Your task to perform on an android device: Open Google Maps and go to "Timeline" Image 0: 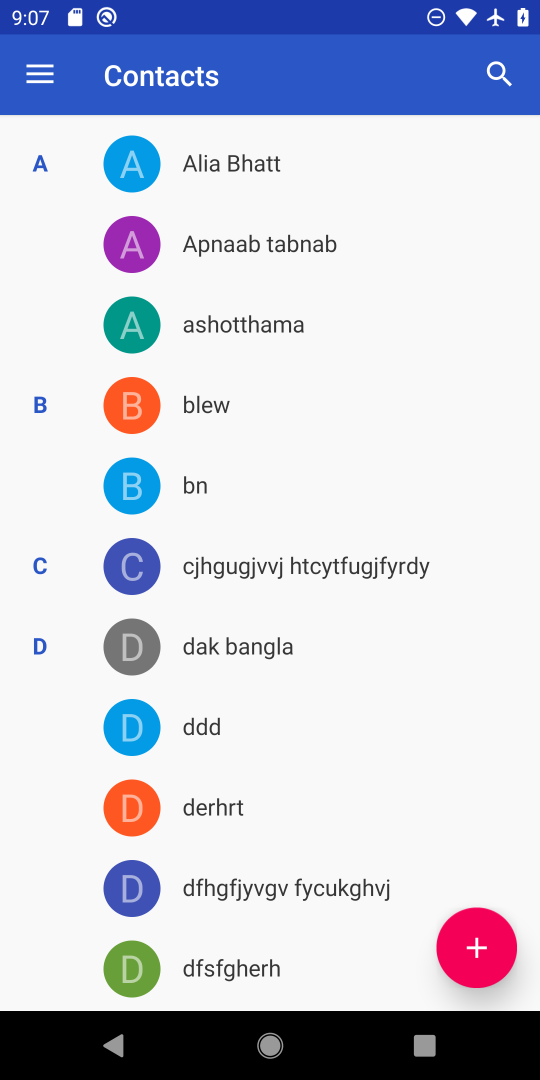
Step 0: press home button
Your task to perform on an android device: Open Google Maps and go to "Timeline" Image 1: 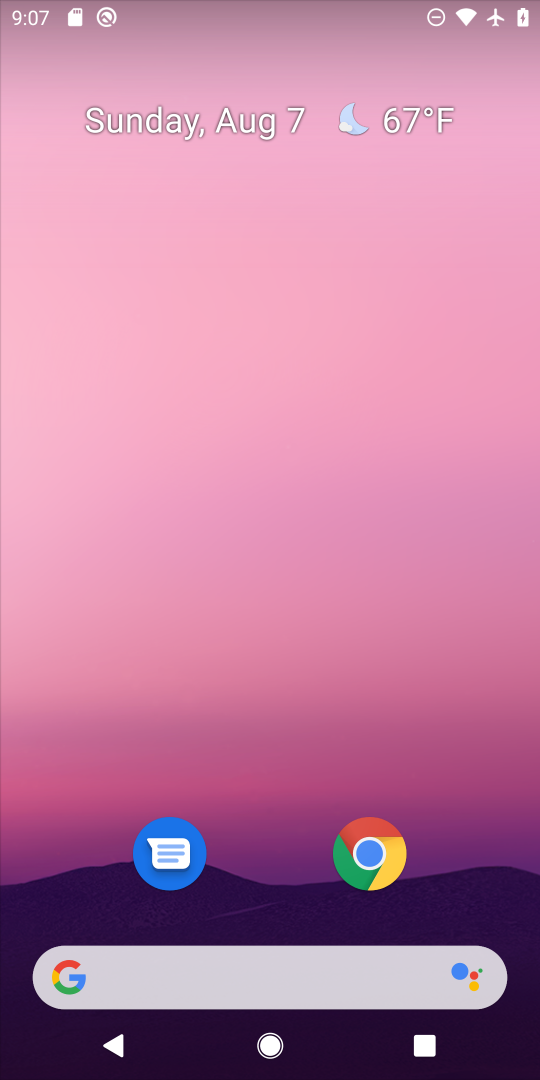
Step 1: drag from (276, 964) to (271, 493)
Your task to perform on an android device: Open Google Maps and go to "Timeline" Image 2: 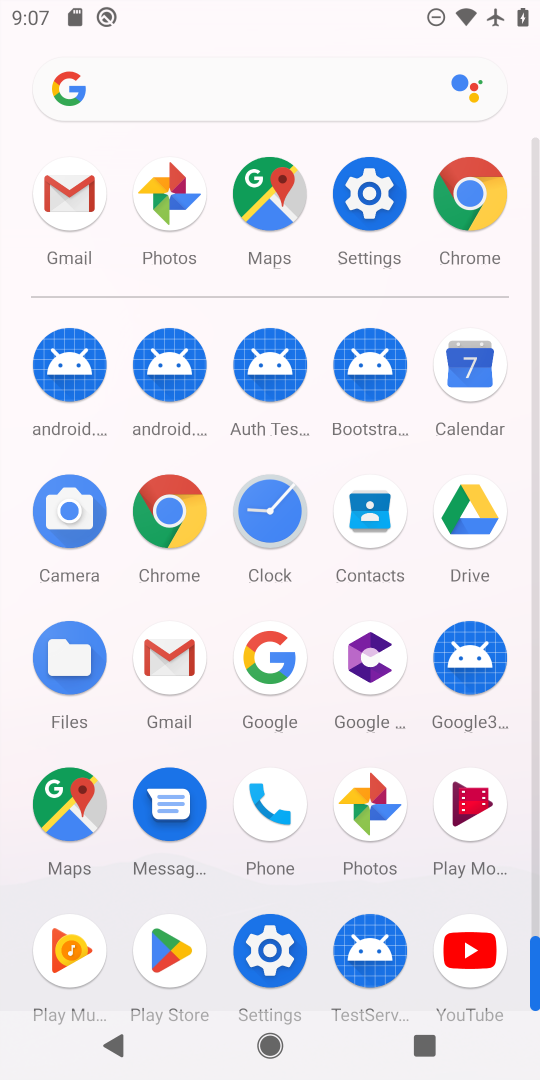
Step 2: click (58, 842)
Your task to perform on an android device: Open Google Maps and go to "Timeline" Image 3: 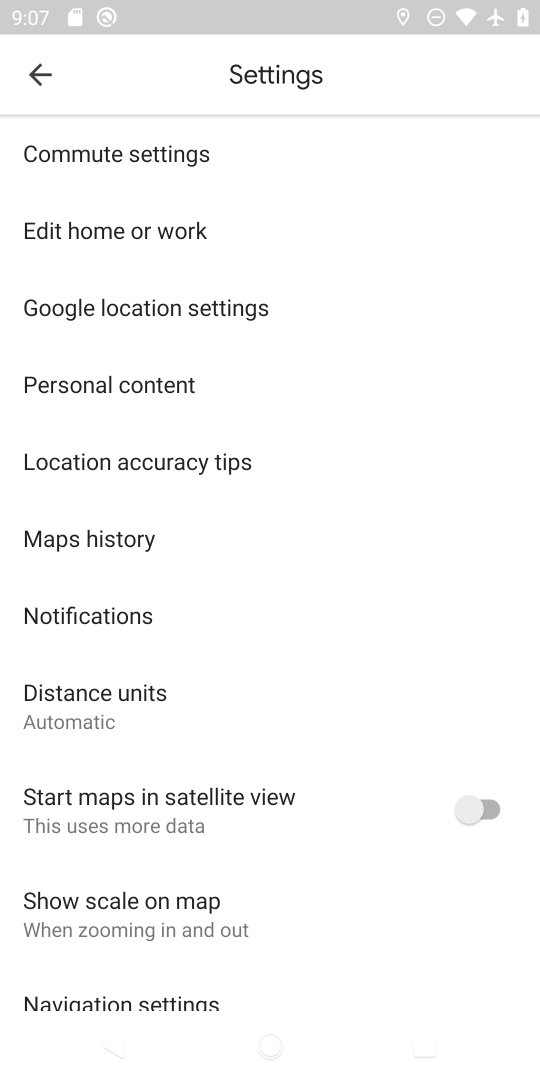
Step 3: click (36, 74)
Your task to perform on an android device: Open Google Maps and go to "Timeline" Image 4: 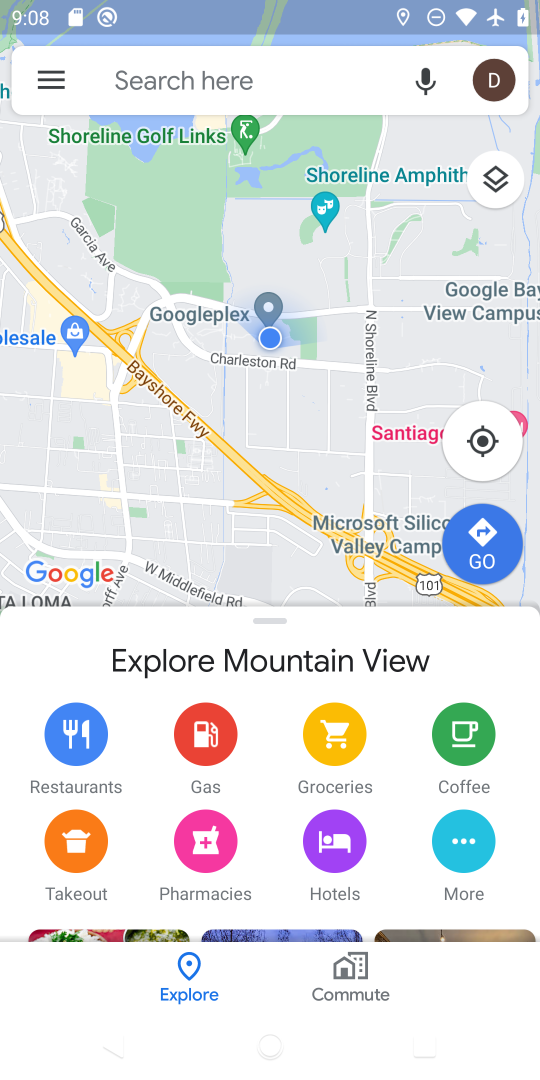
Step 4: click (46, 75)
Your task to perform on an android device: Open Google Maps and go to "Timeline" Image 5: 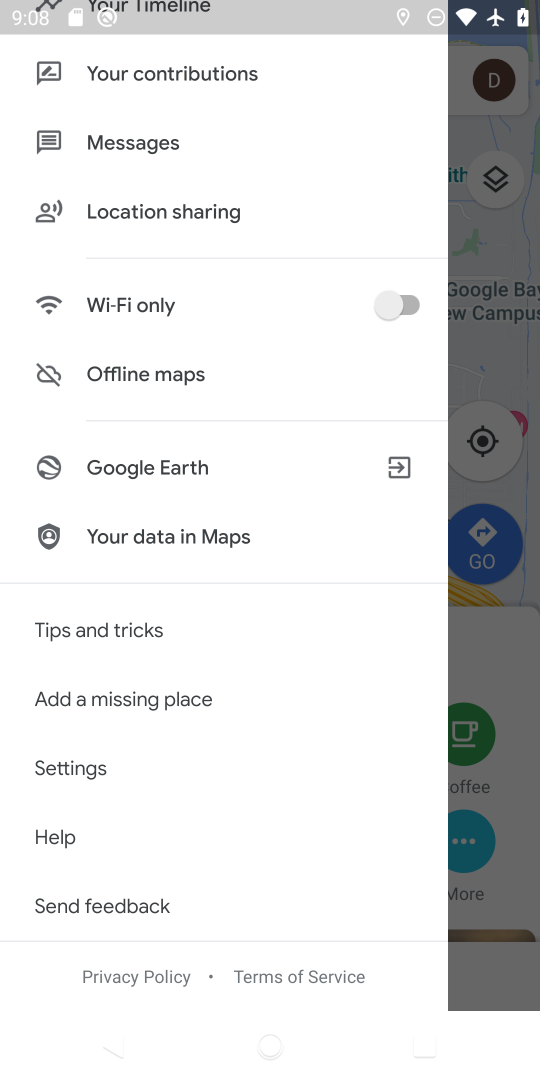
Step 5: drag from (168, 218) to (197, 648)
Your task to perform on an android device: Open Google Maps and go to "Timeline" Image 6: 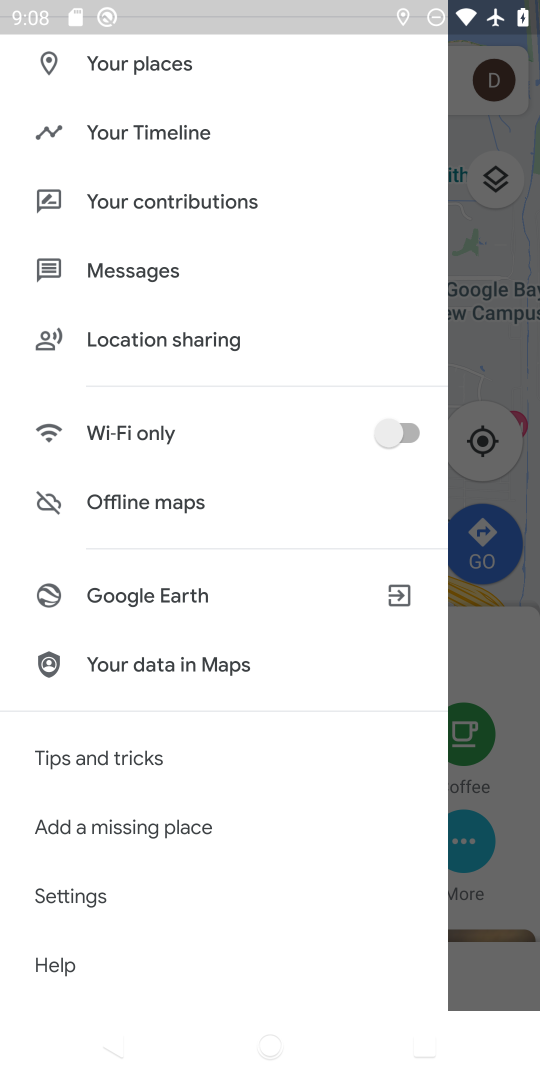
Step 6: click (185, 127)
Your task to perform on an android device: Open Google Maps and go to "Timeline" Image 7: 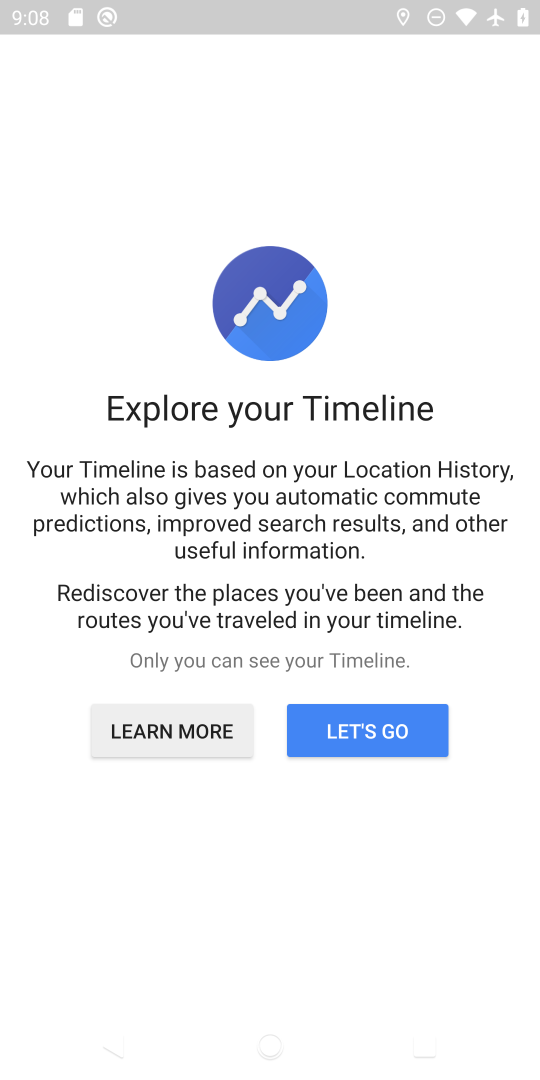
Step 7: click (350, 732)
Your task to perform on an android device: Open Google Maps and go to "Timeline" Image 8: 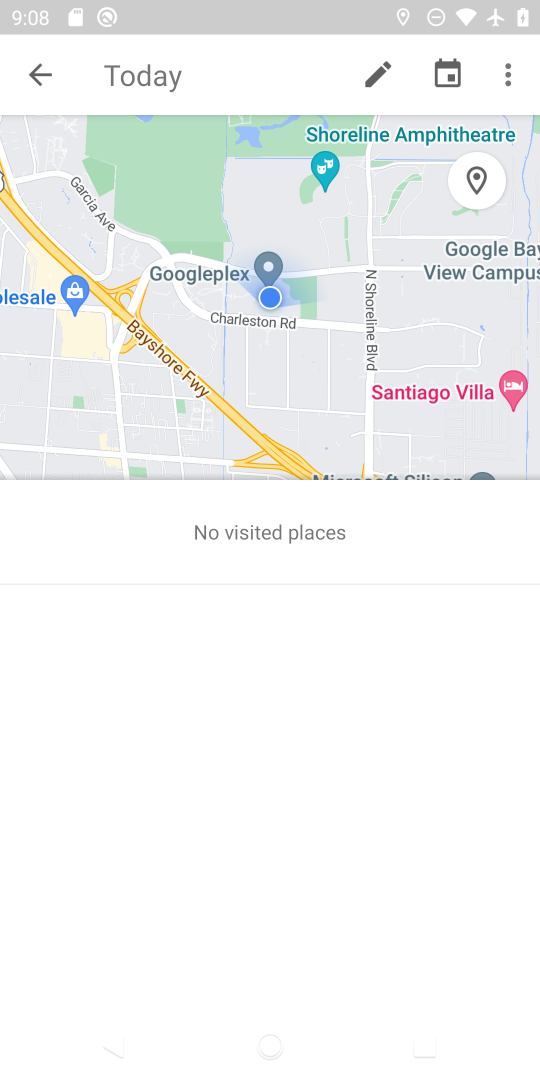
Step 8: task complete